Your task to perform on an android device: Play the last video I watched on Youtube Image 0: 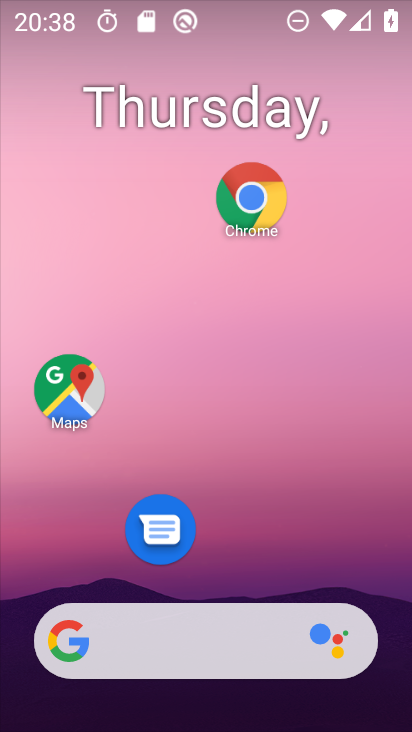
Step 0: press home button
Your task to perform on an android device: Play the last video I watched on Youtube Image 1: 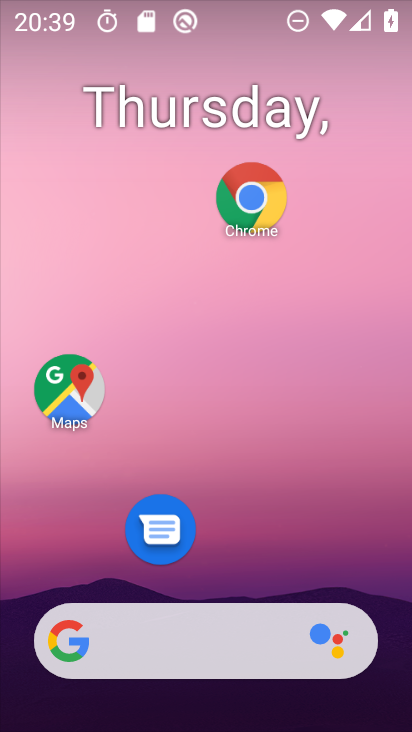
Step 1: drag from (227, 574) to (388, 7)
Your task to perform on an android device: Play the last video I watched on Youtube Image 2: 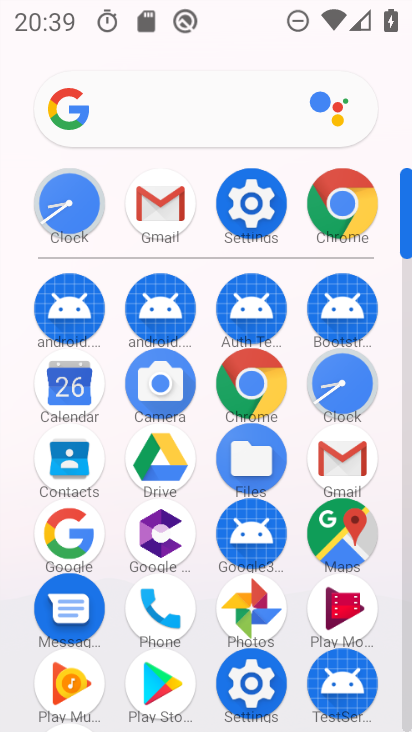
Step 2: drag from (256, 627) to (299, 364)
Your task to perform on an android device: Play the last video I watched on Youtube Image 3: 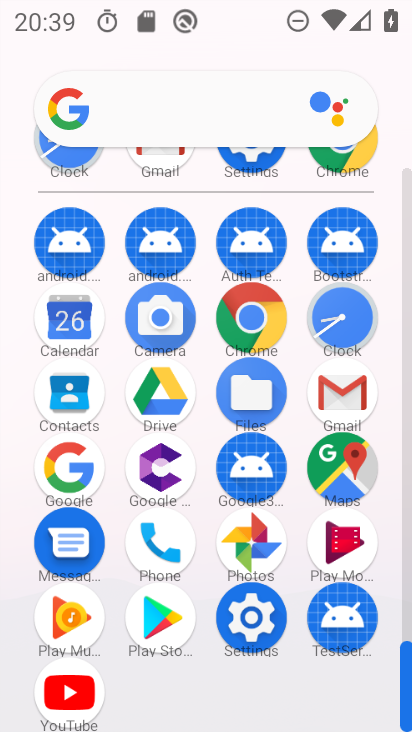
Step 3: click (67, 693)
Your task to perform on an android device: Play the last video I watched on Youtube Image 4: 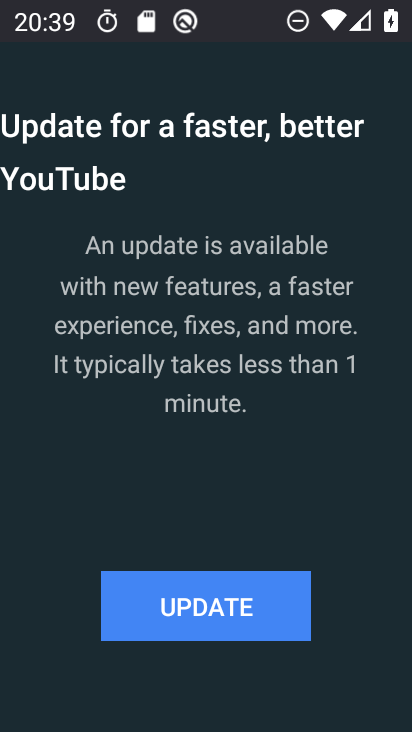
Step 4: click (204, 597)
Your task to perform on an android device: Play the last video I watched on Youtube Image 5: 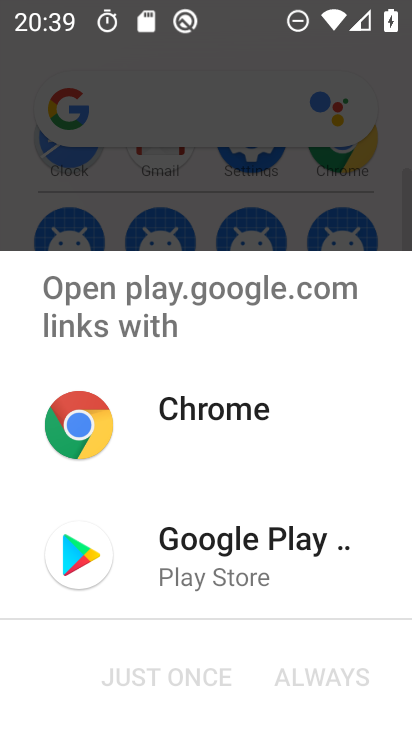
Step 5: click (262, 574)
Your task to perform on an android device: Play the last video I watched on Youtube Image 6: 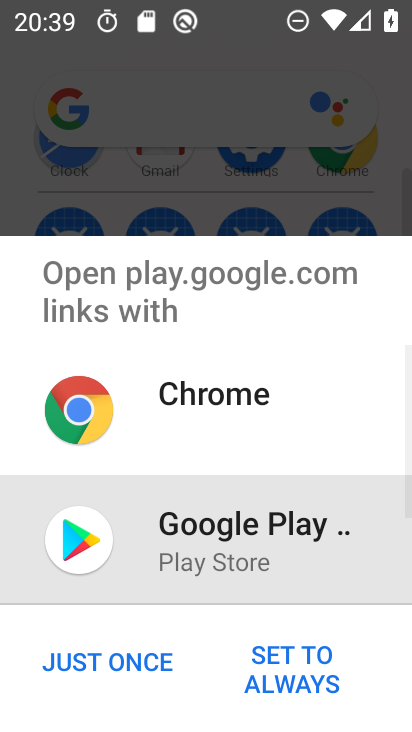
Step 6: click (295, 673)
Your task to perform on an android device: Play the last video I watched on Youtube Image 7: 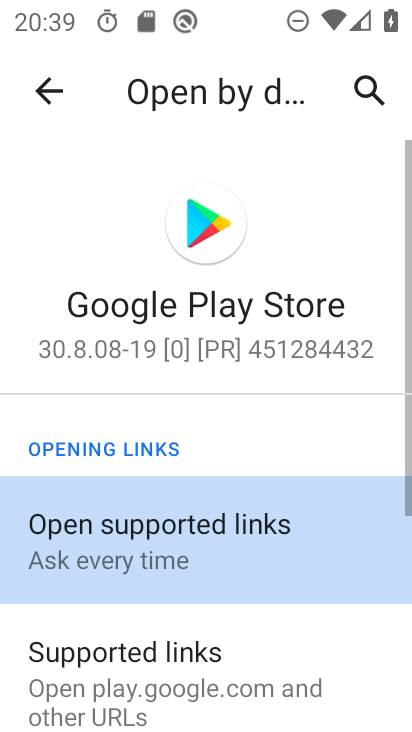
Step 7: click (173, 573)
Your task to perform on an android device: Play the last video I watched on Youtube Image 8: 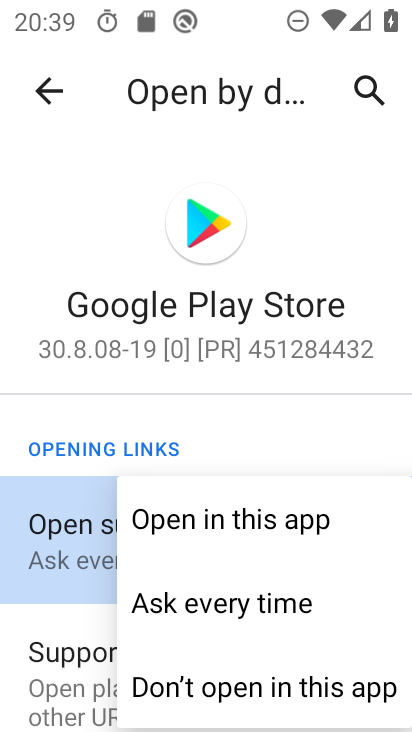
Step 8: click (187, 512)
Your task to perform on an android device: Play the last video I watched on Youtube Image 9: 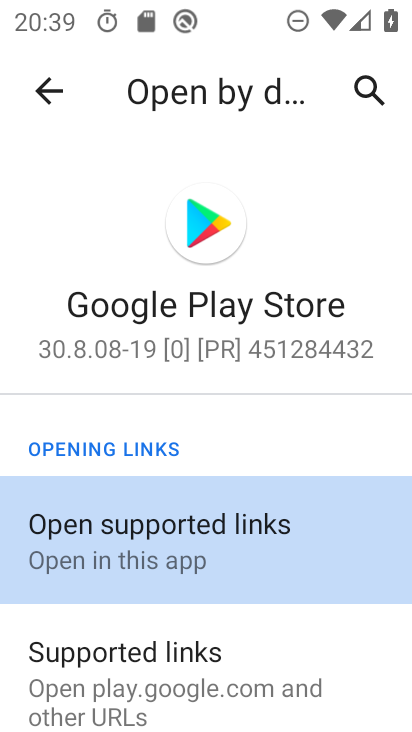
Step 9: click (45, 91)
Your task to perform on an android device: Play the last video I watched on Youtube Image 10: 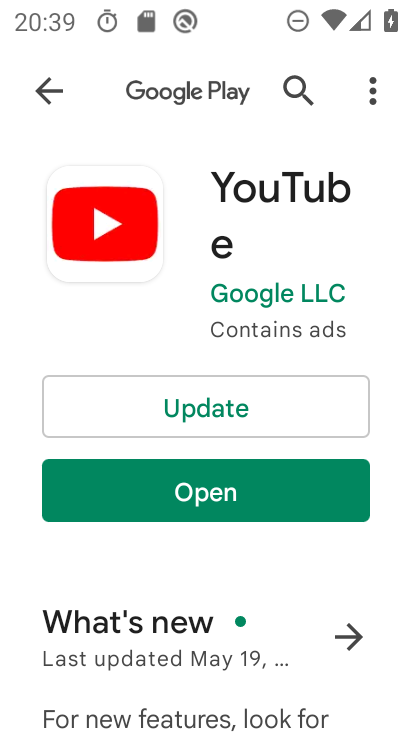
Step 10: click (152, 406)
Your task to perform on an android device: Play the last video I watched on Youtube Image 11: 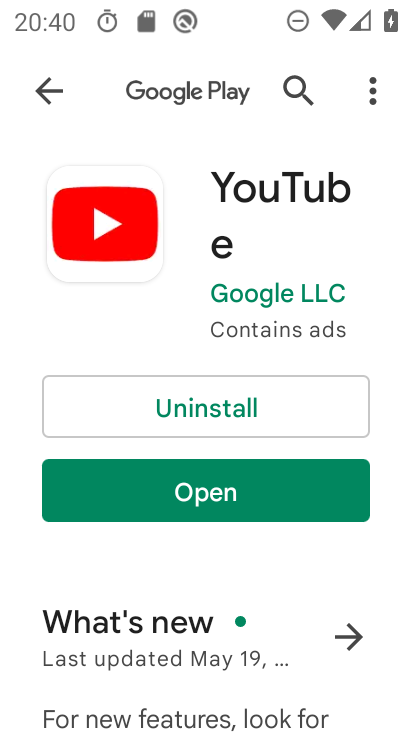
Step 11: click (188, 512)
Your task to perform on an android device: Play the last video I watched on Youtube Image 12: 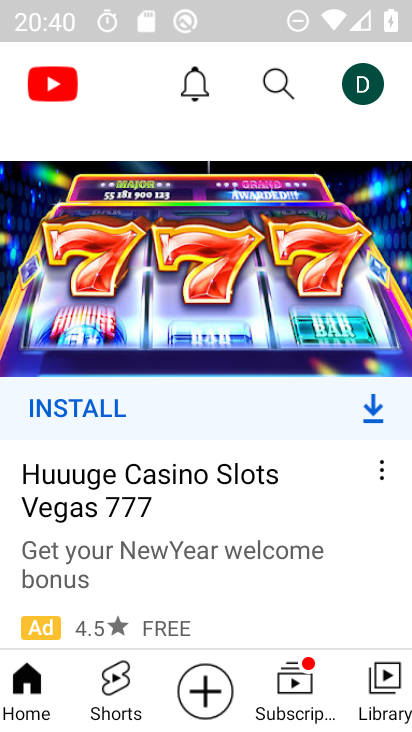
Step 12: click (373, 677)
Your task to perform on an android device: Play the last video I watched on Youtube Image 13: 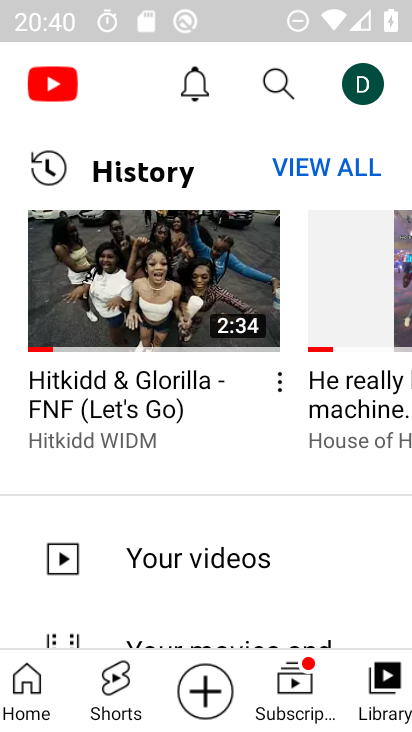
Step 13: task complete